Your task to perform on an android device: change timer sound Image 0: 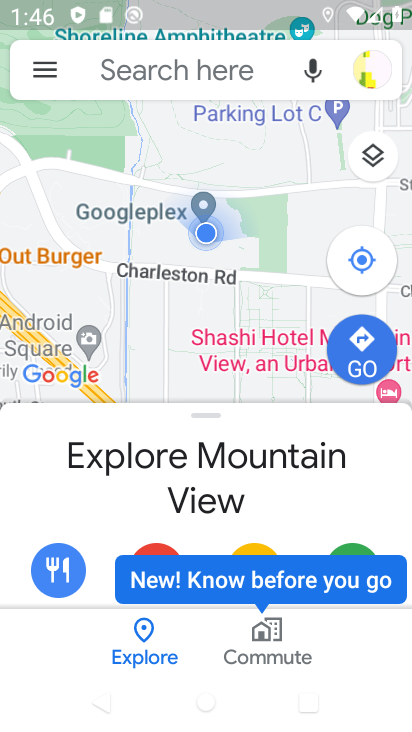
Step 0: press back button
Your task to perform on an android device: change timer sound Image 1: 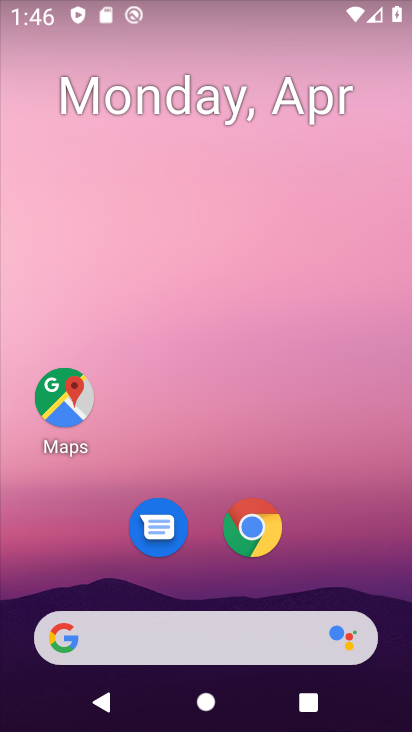
Step 1: drag from (369, 584) to (233, 3)
Your task to perform on an android device: change timer sound Image 2: 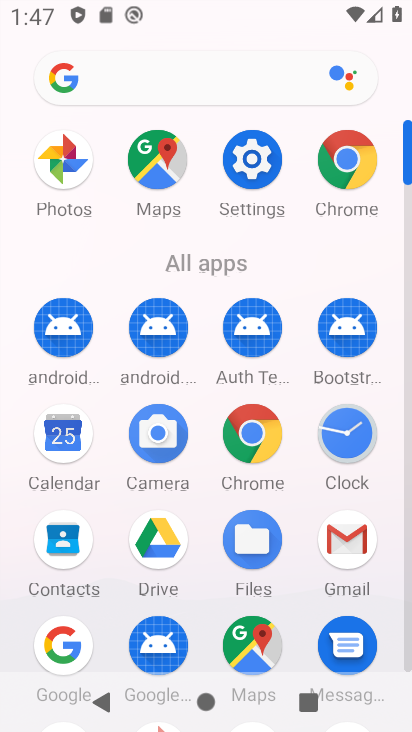
Step 2: click (350, 432)
Your task to perform on an android device: change timer sound Image 3: 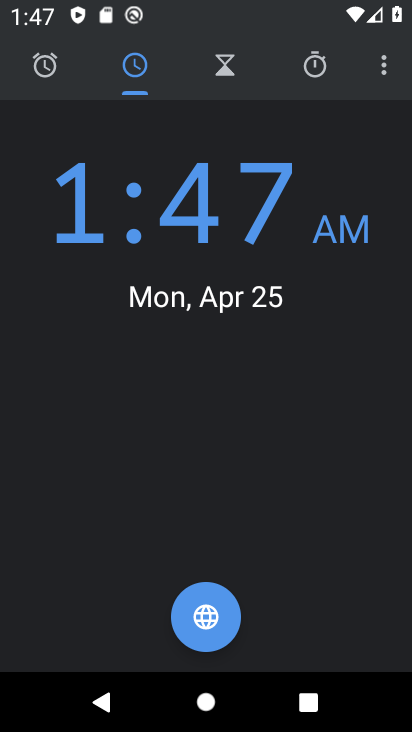
Step 3: drag from (377, 65) to (345, 130)
Your task to perform on an android device: change timer sound Image 4: 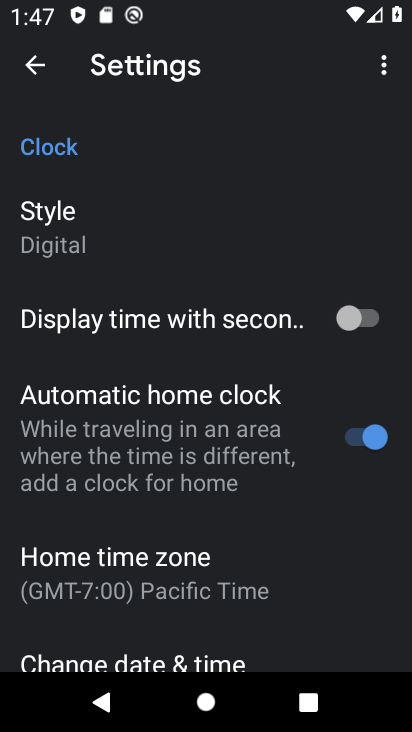
Step 4: drag from (172, 548) to (193, 182)
Your task to perform on an android device: change timer sound Image 5: 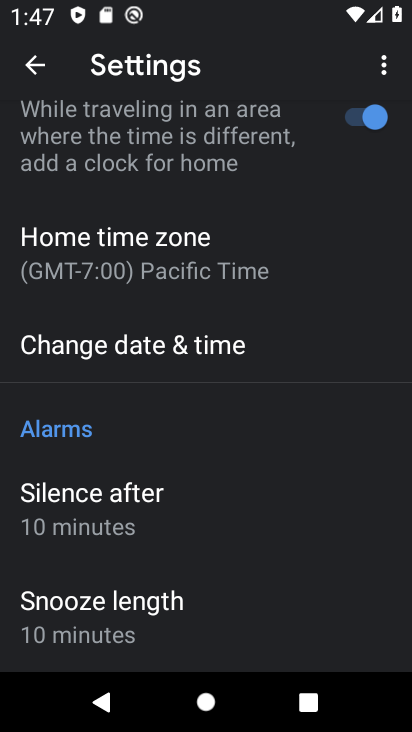
Step 5: drag from (216, 522) to (231, 190)
Your task to perform on an android device: change timer sound Image 6: 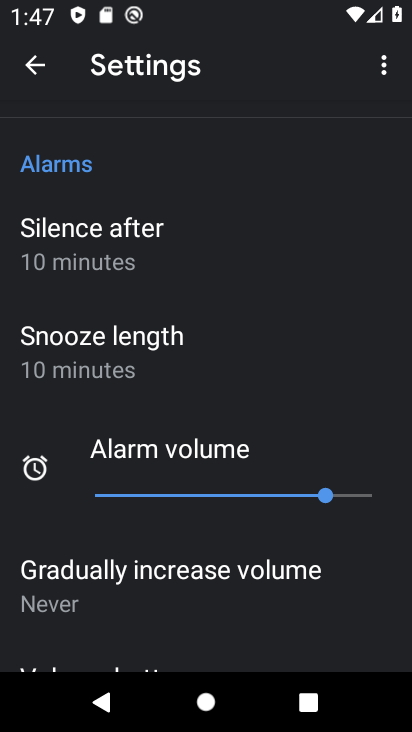
Step 6: drag from (224, 405) to (209, 149)
Your task to perform on an android device: change timer sound Image 7: 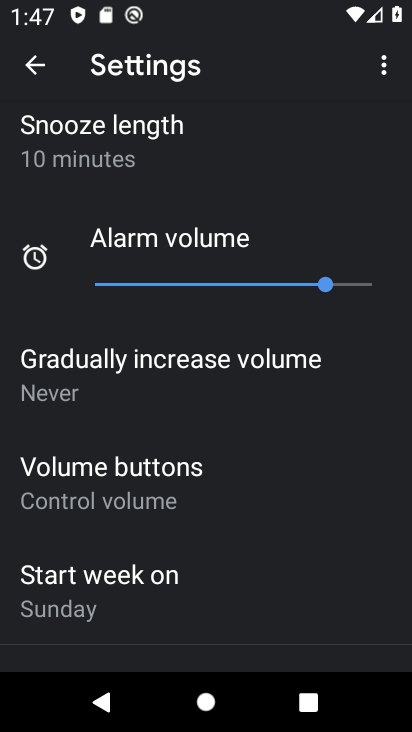
Step 7: drag from (253, 557) to (260, 213)
Your task to perform on an android device: change timer sound Image 8: 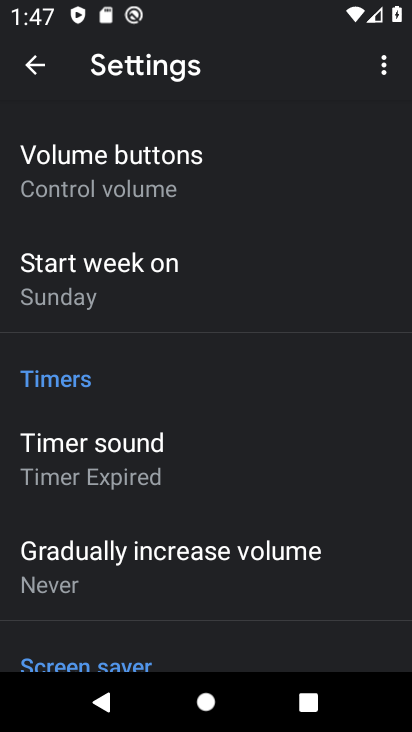
Step 8: click (161, 459)
Your task to perform on an android device: change timer sound Image 9: 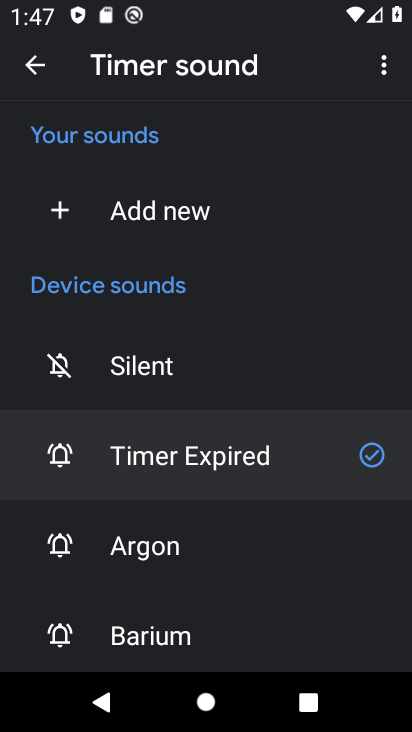
Step 9: click (220, 548)
Your task to perform on an android device: change timer sound Image 10: 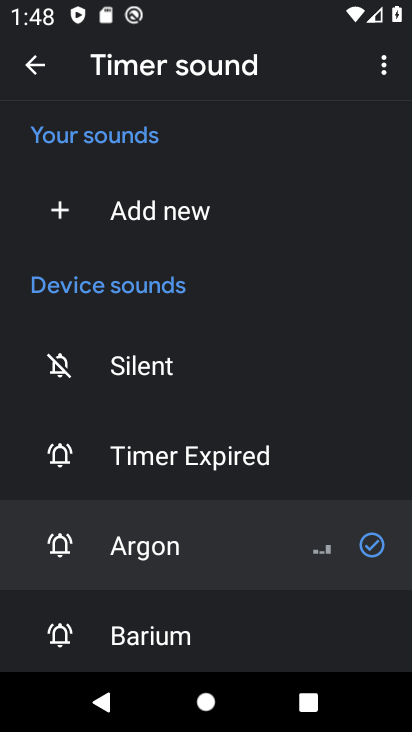
Step 10: task complete